Your task to perform on an android device: Open calendar and show me the first week of next month Image 0: 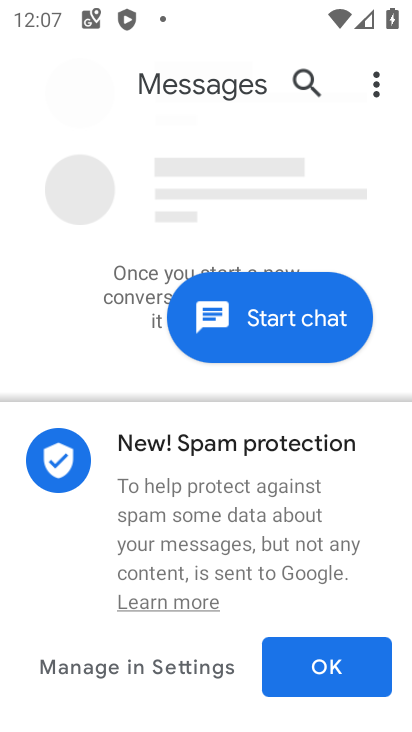
Step 0: press home button
Your task to perform on an android device: Open calendar and show me the first week of next month Image 1: 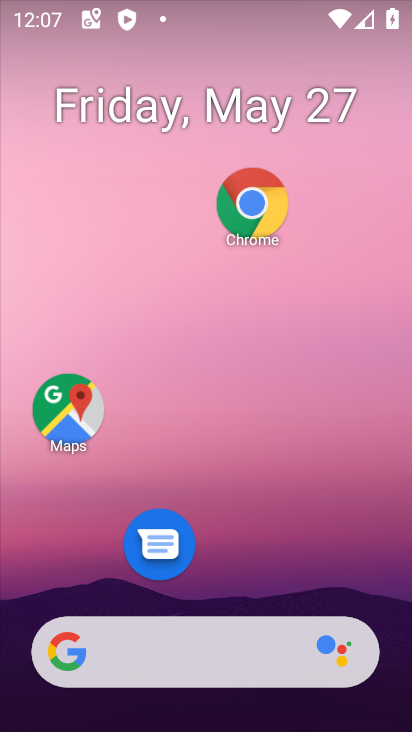
Step 1: drag from (385, 417) to (403, 148)
Your task to perform on an android device: Open calendar and show me the first week of next month Image 2: 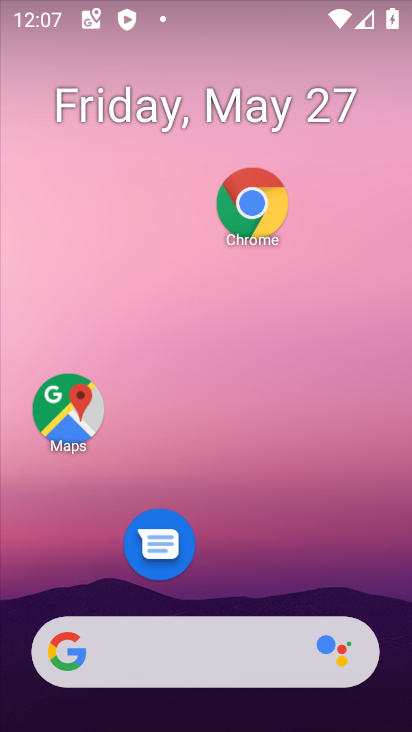
Step 2: drag from (265, 395) to (283, 102)
Your task to perform on an android device: Open calendar and show me the first week of next month Image 3: 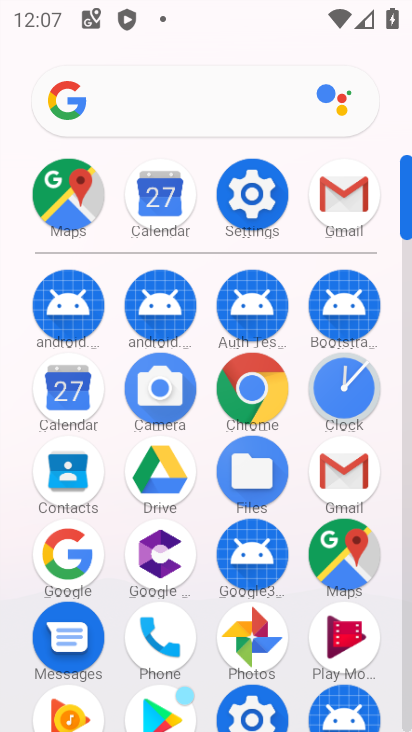
Step 3: click (86, 403)
Your task to perform on an android device: Open calendar and show me the first week of next month Image 4: 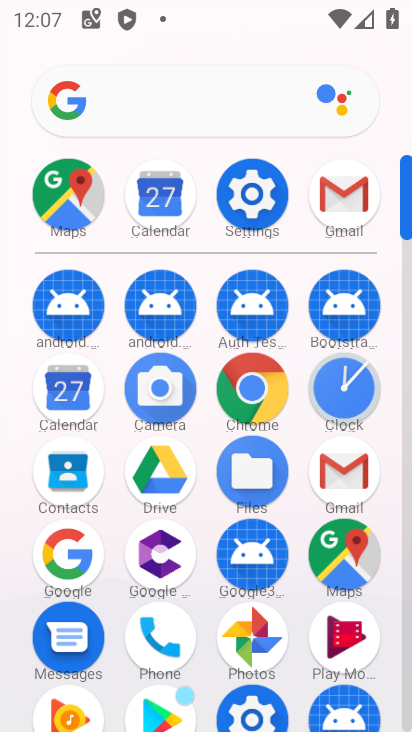
Step 4: click (91, 398)
Your task to perform on an android device: Open calendar and show me the first week of next month Image 5: 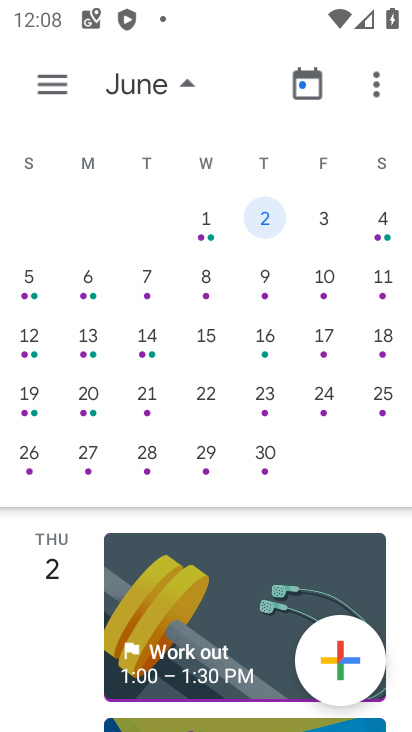
Step 5: click (362, 336)
Your task to perform on an android device: Open calendar and show me the first week of next month Image 6: 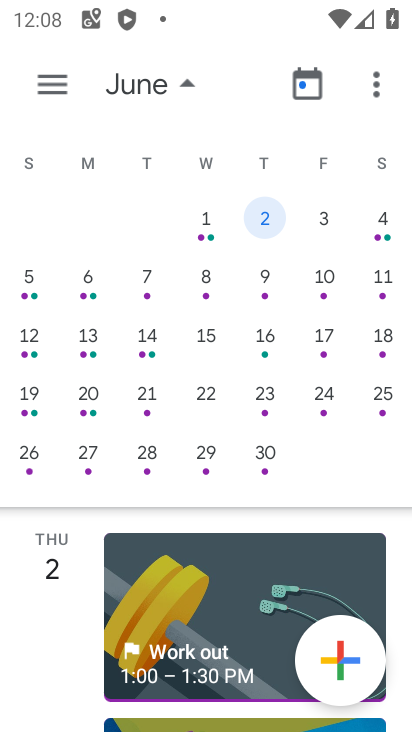
Step 6: click (306, 217)
Your task to perform on an android device: Open calendar and show me the first week of next month Image 7: 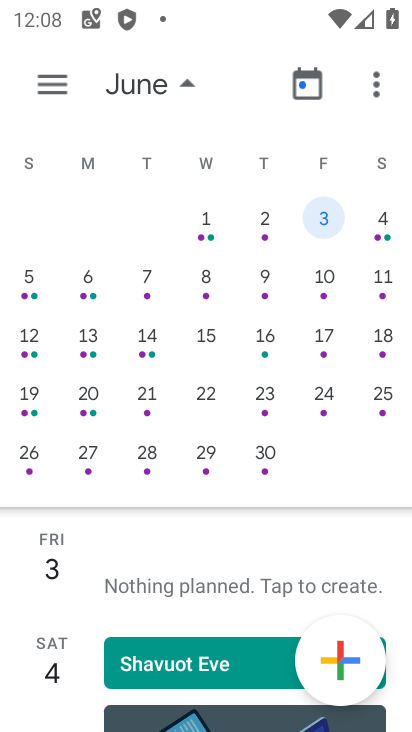
Step 7: task complete